Your task to perform on an android device: Open Maps and search for coffee Image 0: 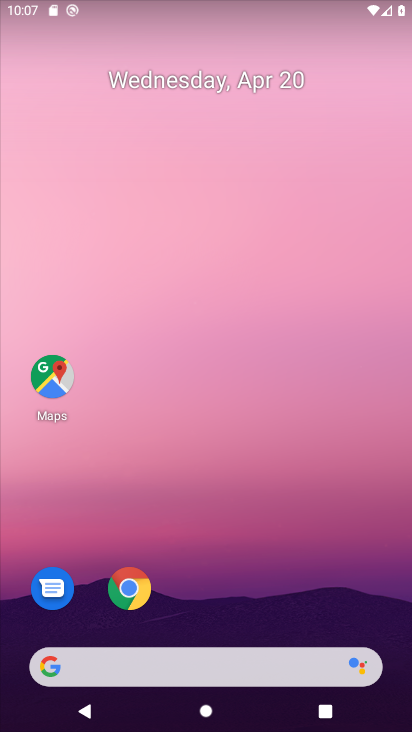
Step 0: click (36, 369)
Your task to perform on an android device: Open Maps and search for coffee Image 1: 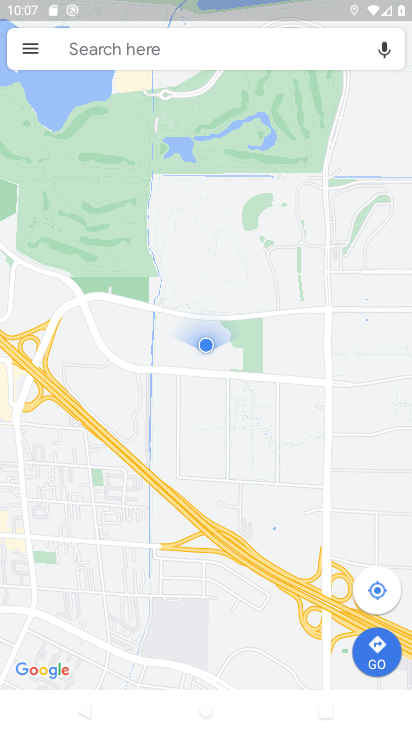
Step 1: click (206, 51)
Your task to perform on an android device: Open Maps and search for coffee Image 2: 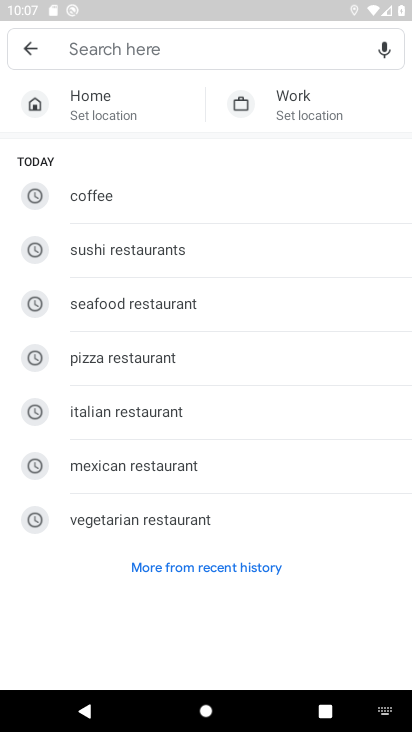
Step 2: type "coffee"
Your task to perform on an android device: Open Maps and search for coffee Image 3: 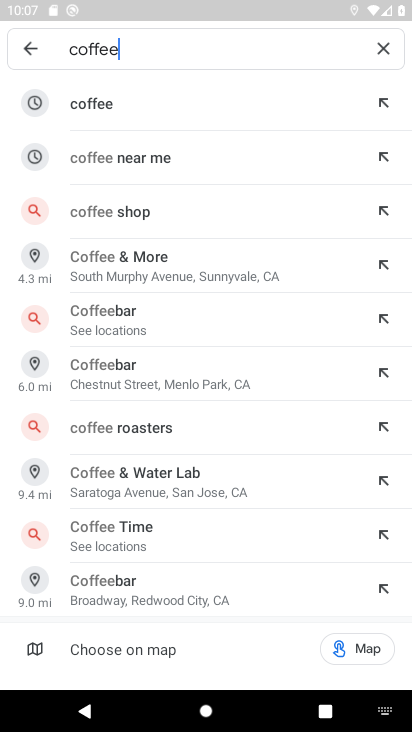
Step 3: click (129, 101)
Your task to perform on an android device: Open Maps and search for coffee Image 4: 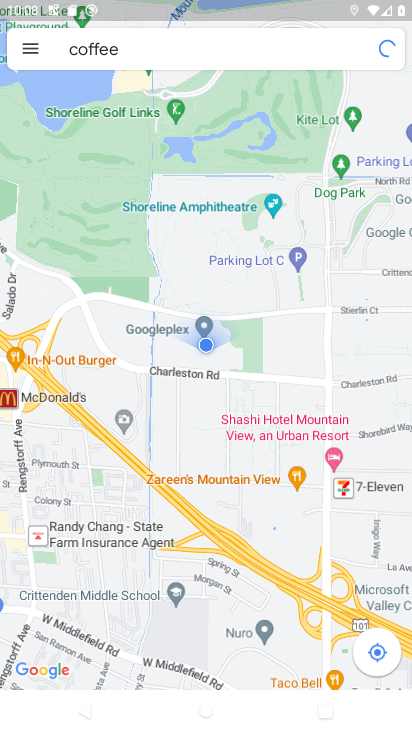
Step 4: task complete